Your task to perform on an android device: Open settings on Google Maps Image 0: 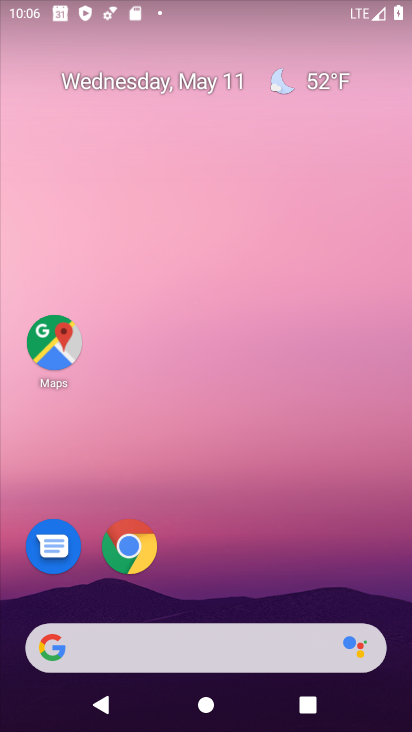
Step 0: click (56, 365)
Your task to perform on an android device: Open settings on Google Maps Image 1: 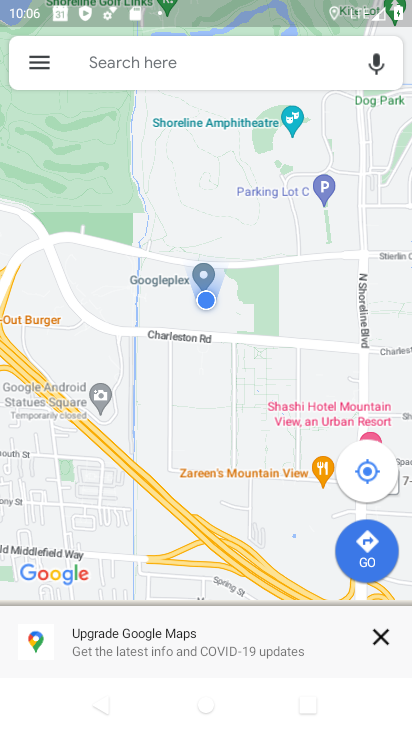
Step 1: click (34, 66)
Your task to perform on an android device: Open settings on Google Maps Image 2: 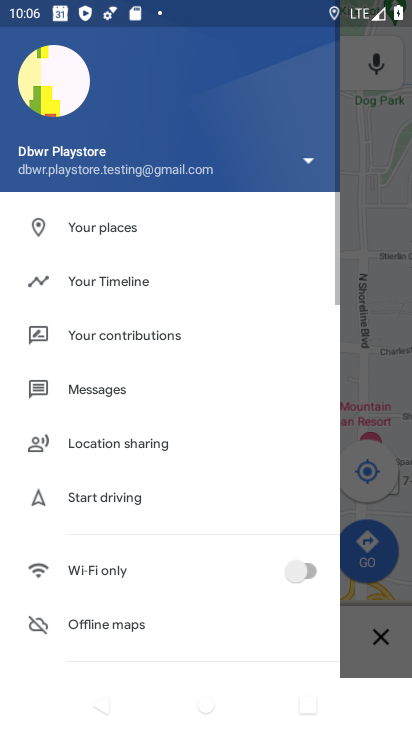
Step 2: drag from (155, 578) to (130, 55)
Your task to perform on an android device: Open settings on Google Maps Image 3: 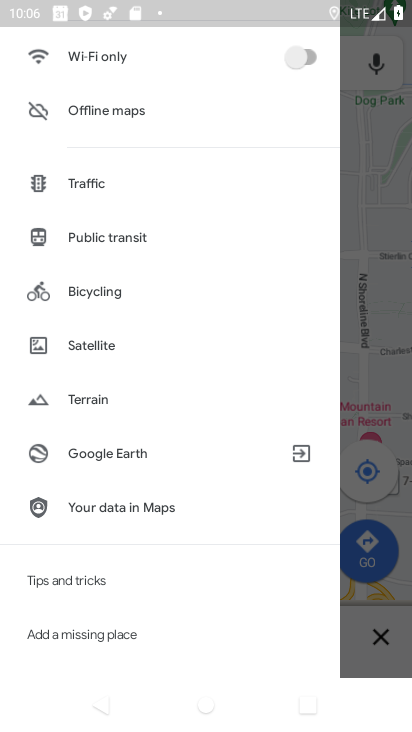
Step 3: drag from (104, 502) to (61, 43)
Your task to perform on an android device: Open settings on Google Maps Image 4: 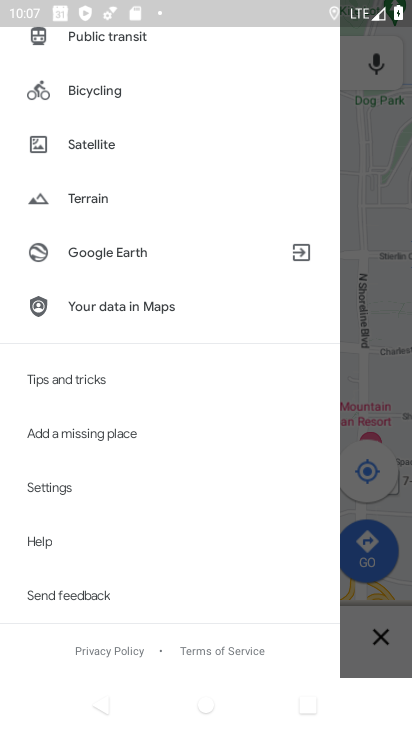
Step 4: click (79, 485)
Your task to perform on an android device: Open settings on Google Maps Image 5: 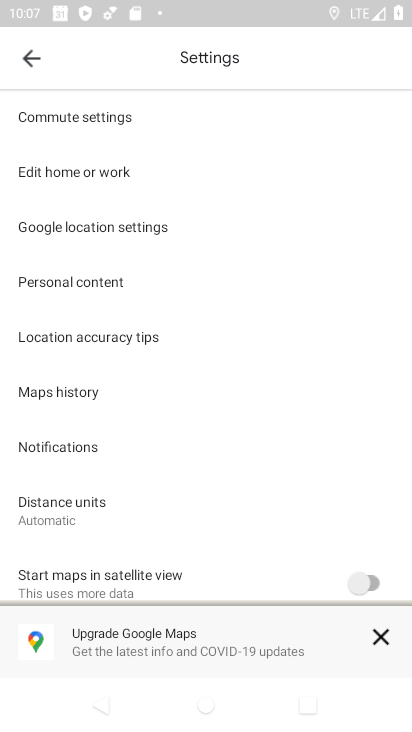
Step 5: task complete